Your task to perform on an android device: change your default location settings in chrome Image 0: 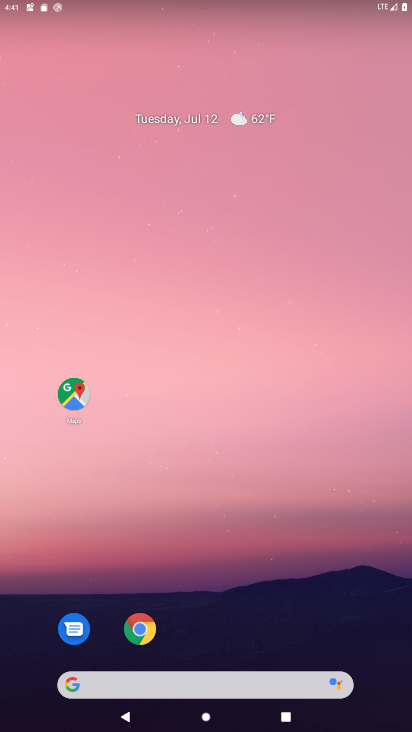
Step 0: click (281, 80)
Your task to perform on an android device: change your default location settings in chrome Image 1: 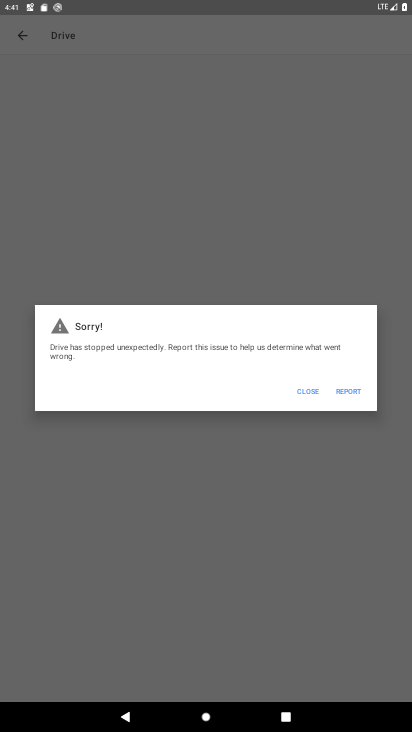
Step 1: press home button
Your task to perform on an android device: change your default location settings in chrome Image 2: 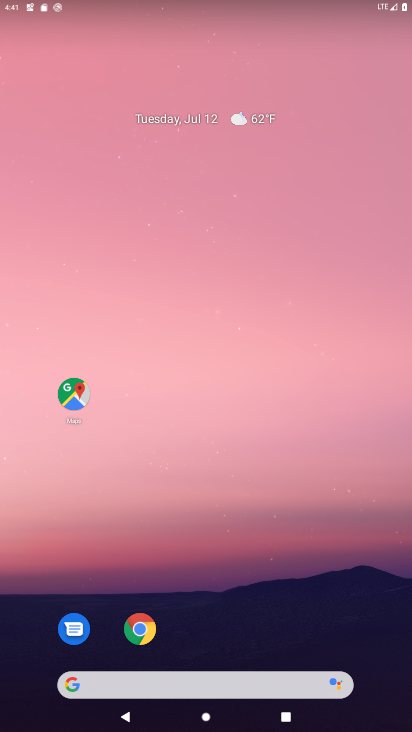
Step 2: drag from (366, 549) to (307, 89)
Your task to perform on an android device: change your default location settings in chrome Image 3: 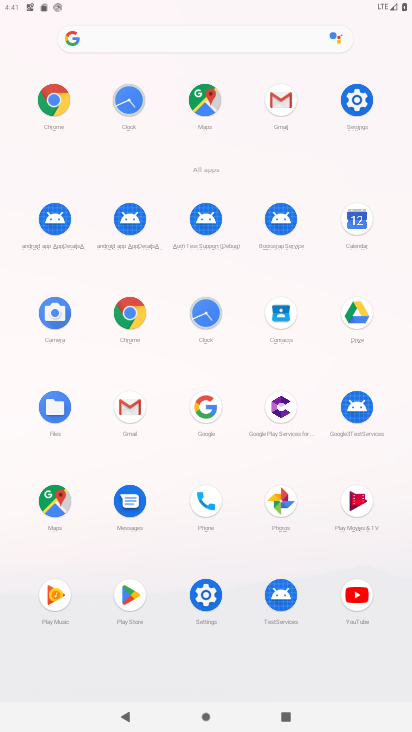
Step 3: click (42, 104)
Your task to perform on an android device: change your default location settings in chrome Image 4: 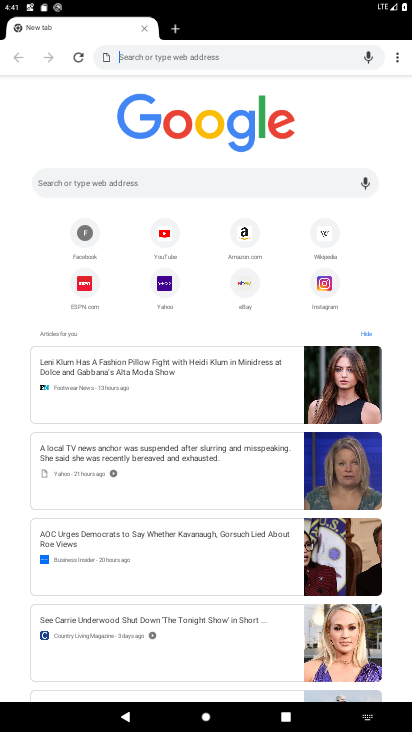
Step 4: drag from (397, 67) to (272, 271)
Your task to perform on an android device: change your default location settings in chrome Image 5: 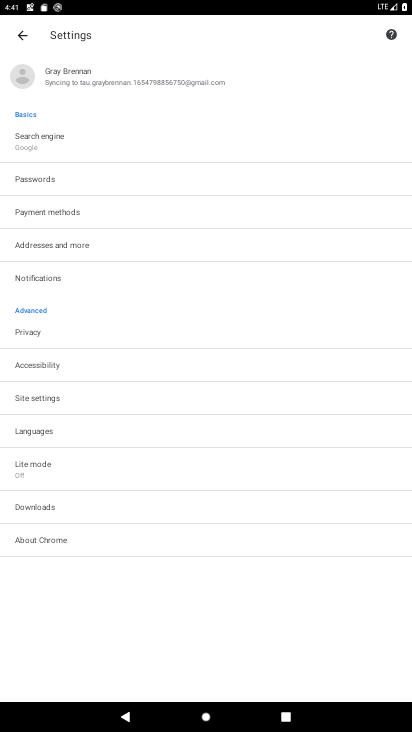
Step 5: click (57, 130)
Your task to perform on an android device: change your default location settings in chrome Image 6: 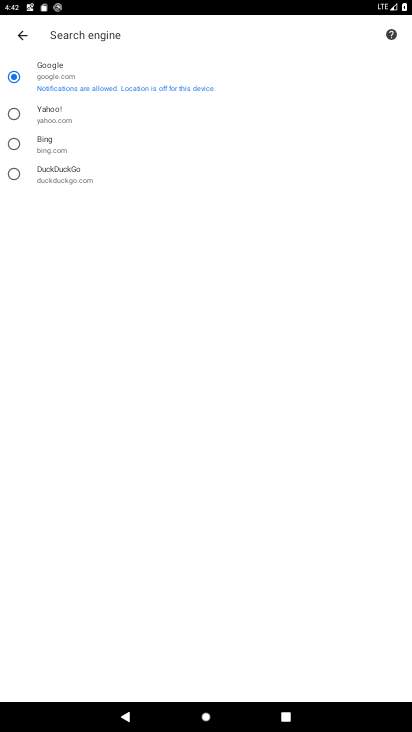
Step 6: task complete